Your task to perform on an android device: toggle wifi Image 0: 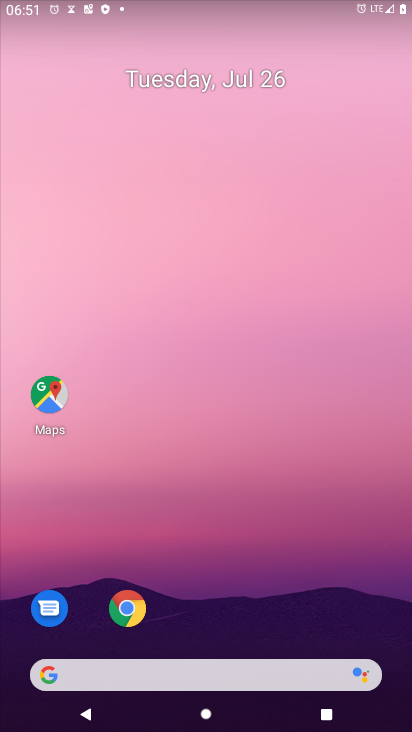
Step 0: drag from (226, 57) to (251, 544)
Your task to perform on an android device: toggle wifi Image 1: 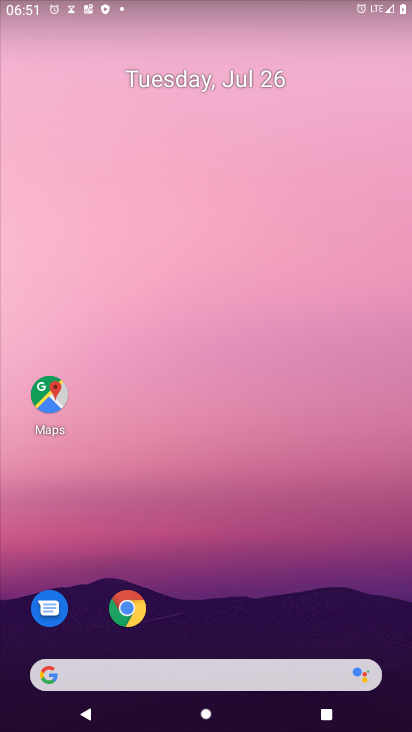
Step 1: drag from (227, 5) to (187, 552)
Your task to perform on an android device: toggle wifi Image 2: 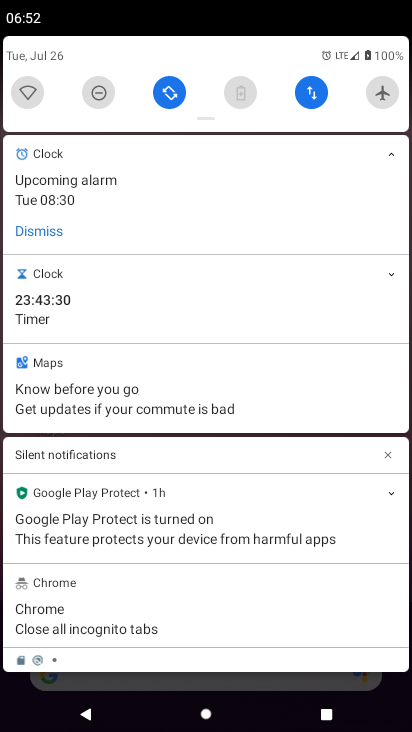
Step 2: click (27, 86)
Your task to perform on an android device: toggle wifi Image 3: 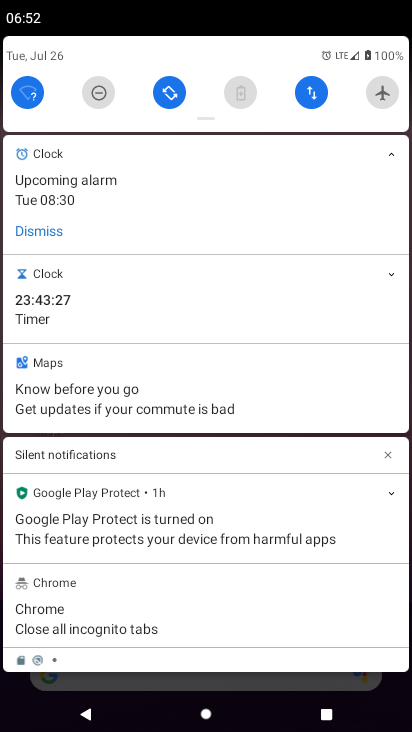
Step 3: task complete